Your task to perform on an android device: open wifi settings Image 0: 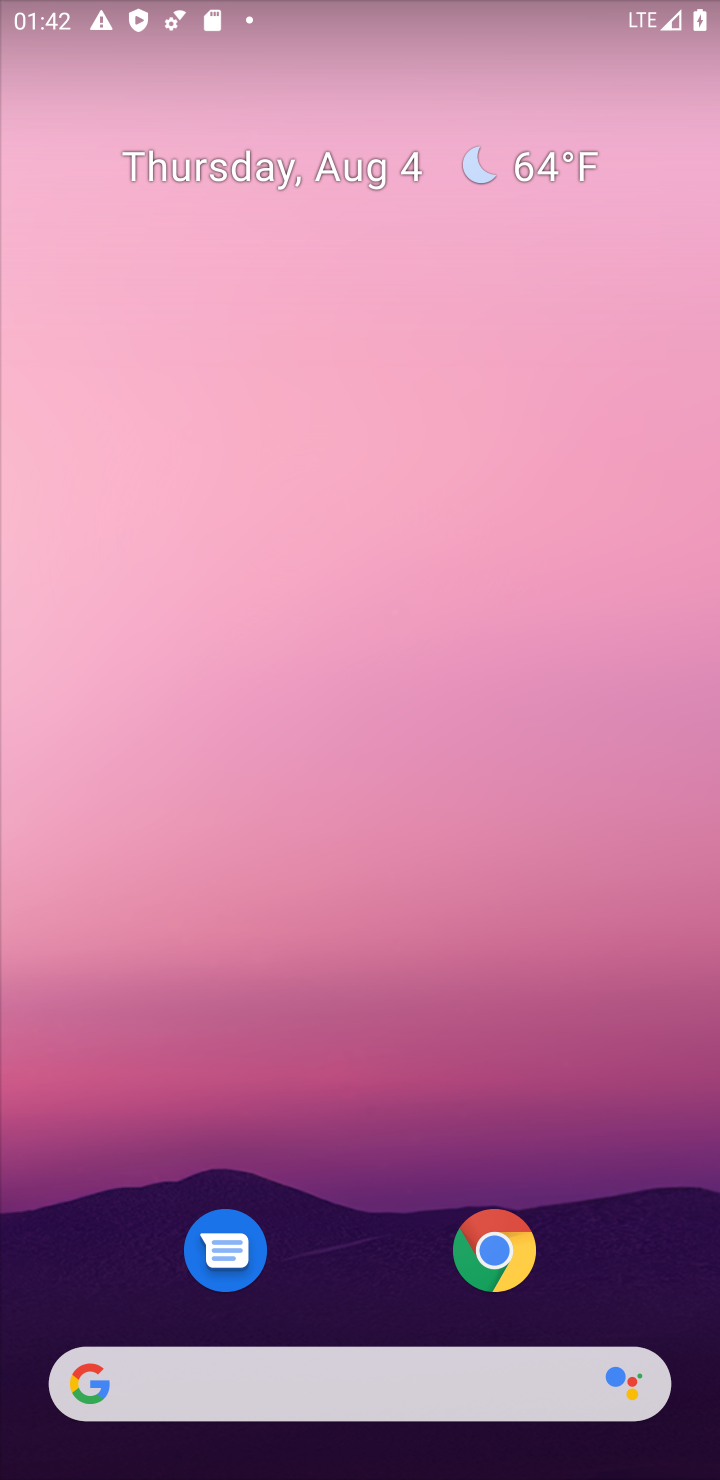
Step 0: drag from (343, 1269) to (160, 220)
Your task to perform on an android device: open wifi settings Image 1: 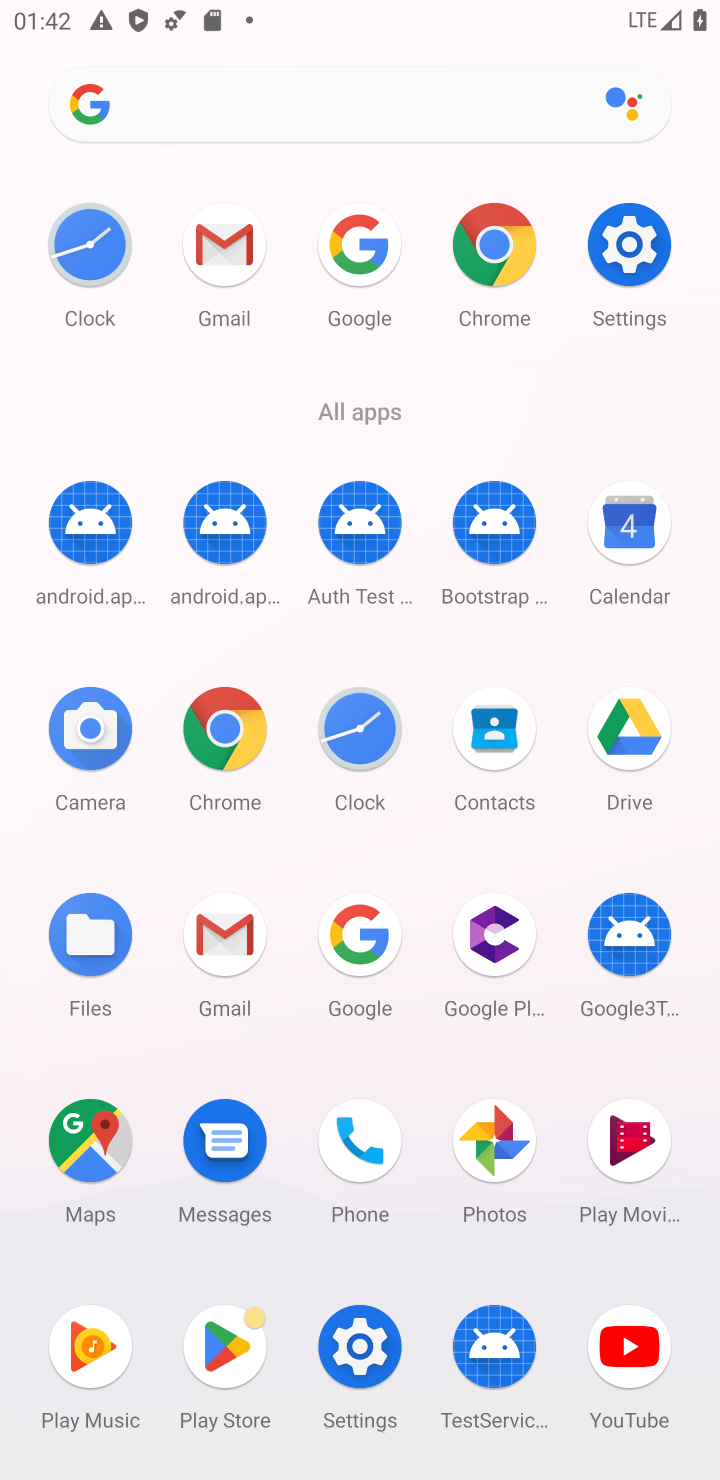
Step 1: click (621, 232)
Your task to perform on an android device: open wifi settings Image 2: 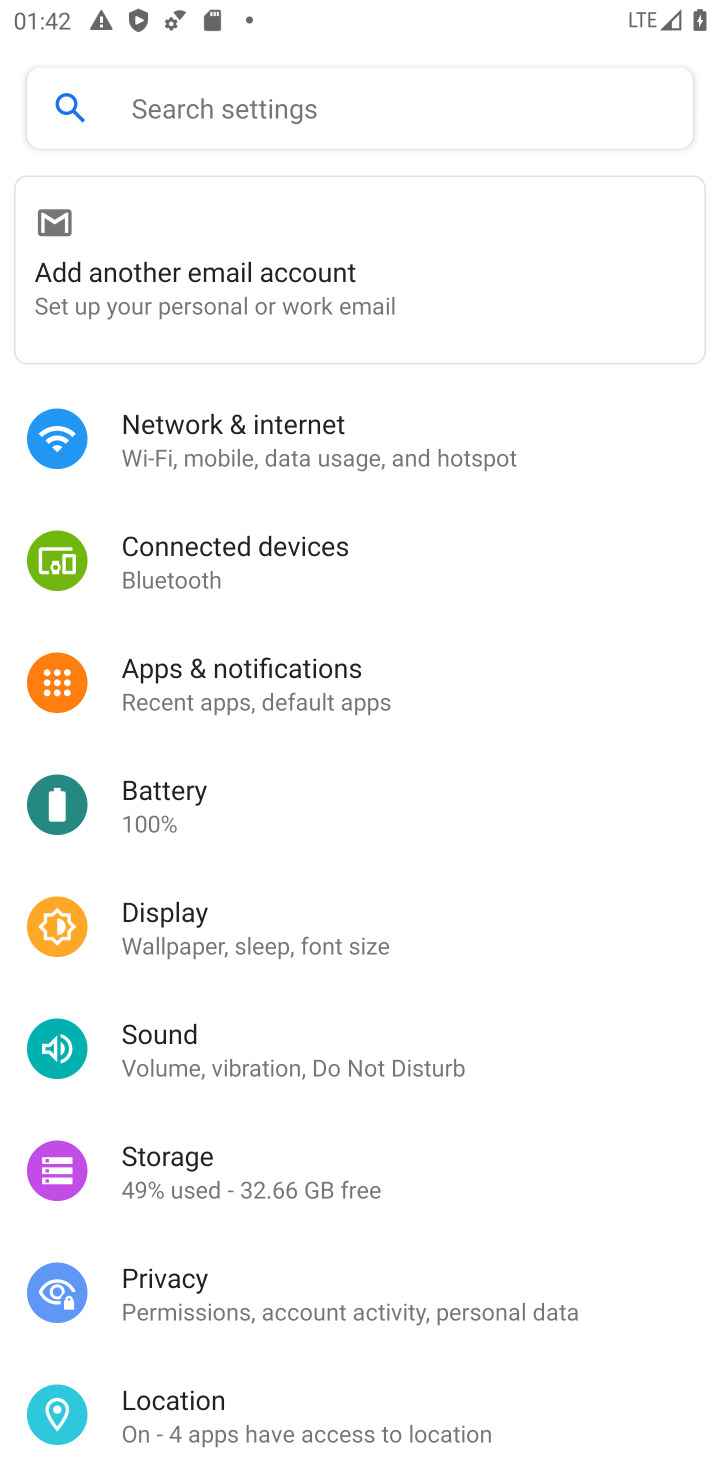
Step 2: click (356, 463)
Your task to perform on an android device: open wifi settings Image 3: 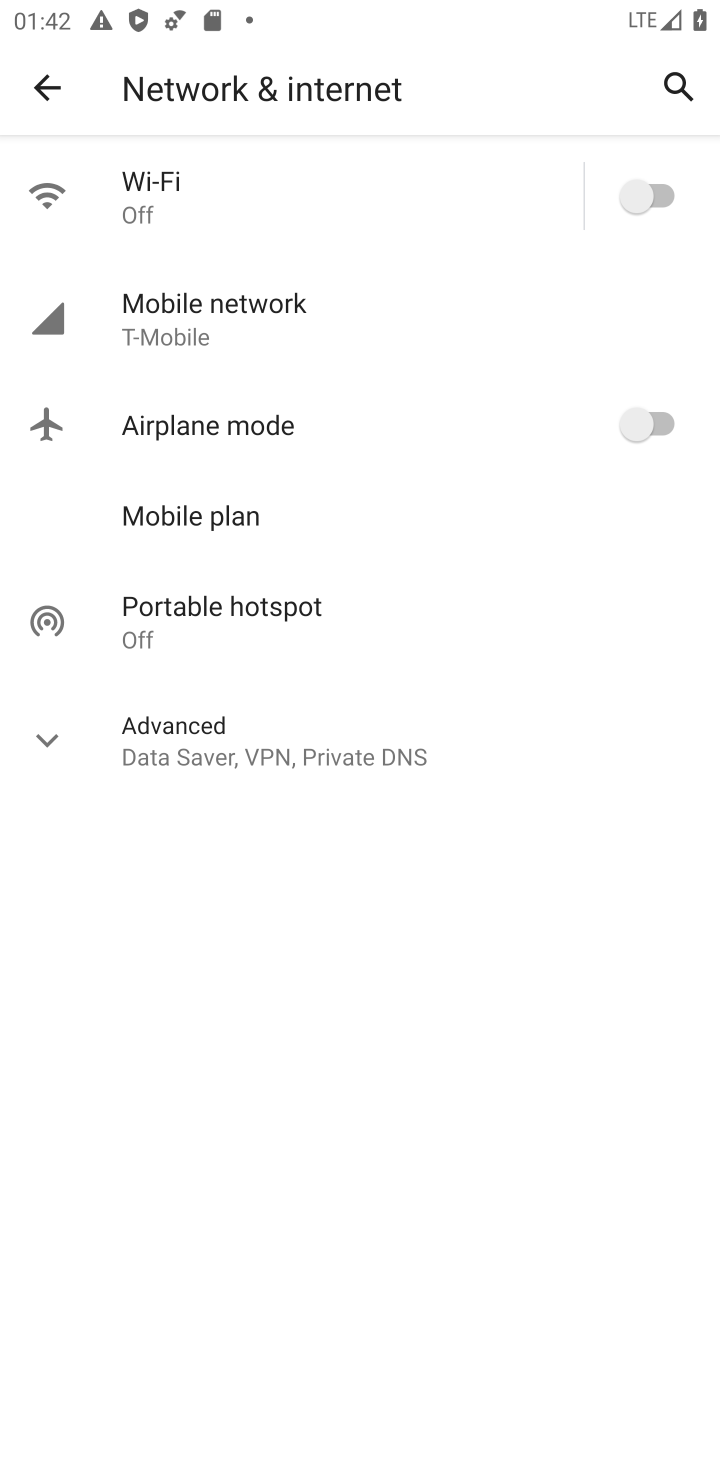
Step 3: click (187, 208)
Your task to perform on an android device: open wifi settings Image 4: 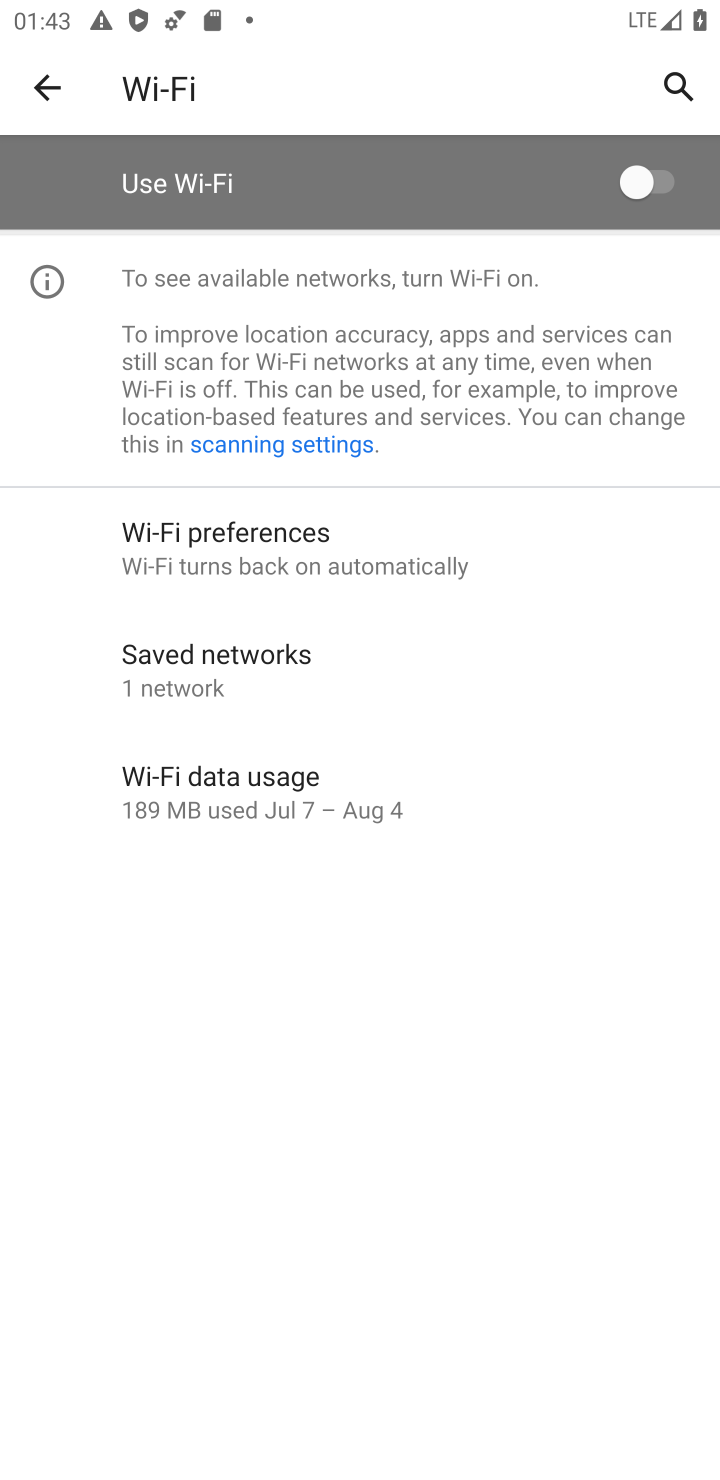
Step 4: task complete